Your task to perform on an android device: open the mobile data screen to see how much data has been used Image 0: 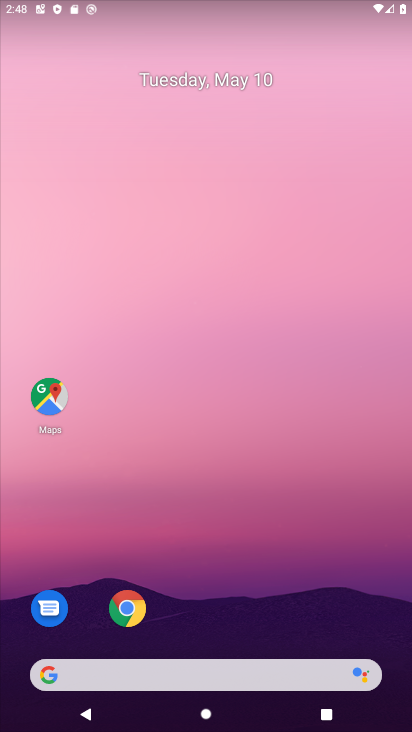
Step 0: drag from (246, 614) to (305, 12)
Your task to perform on an android device: open the mobile data screen to see how much data has been used Image 1: 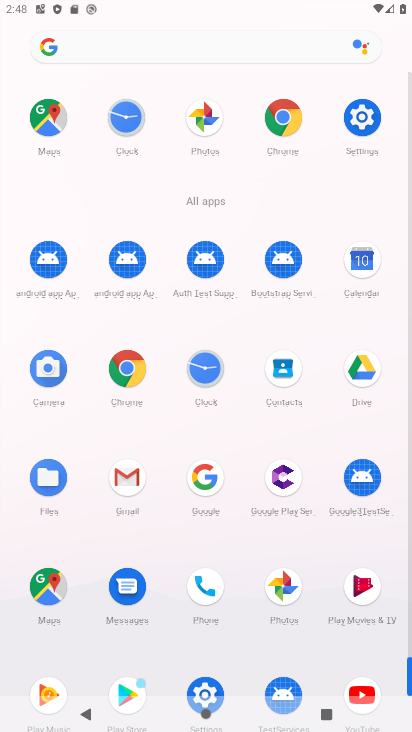
Step 1: drag from (238, 653) to (249, 509)
Your task to perform on an android device: open the mobile data screen to see how much data has been used Image 2: 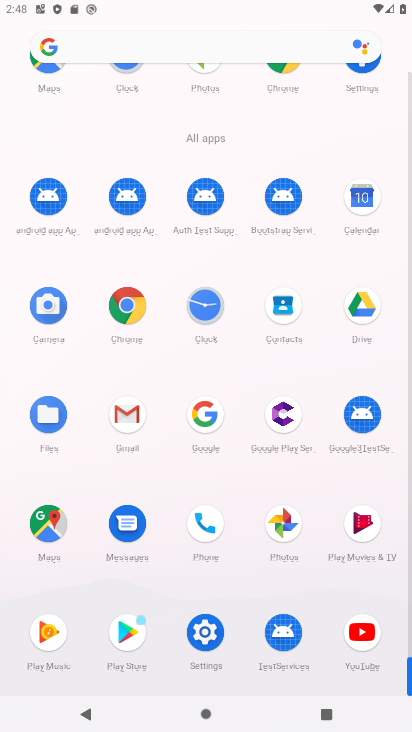
Step 2: click (201, 643)
Your task to perform on an android device: open the mobile data screen to see how much data has been used Image 3: 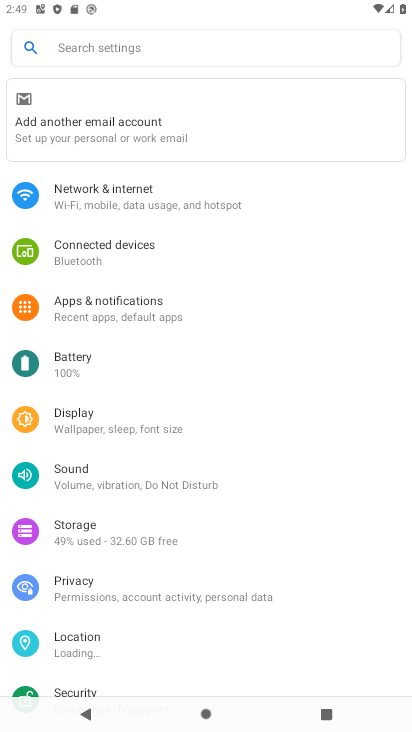
Step 3: click (148, 215)
Your task to perform on an android device: open the mobile data screen to see how much data has been used Image 4: 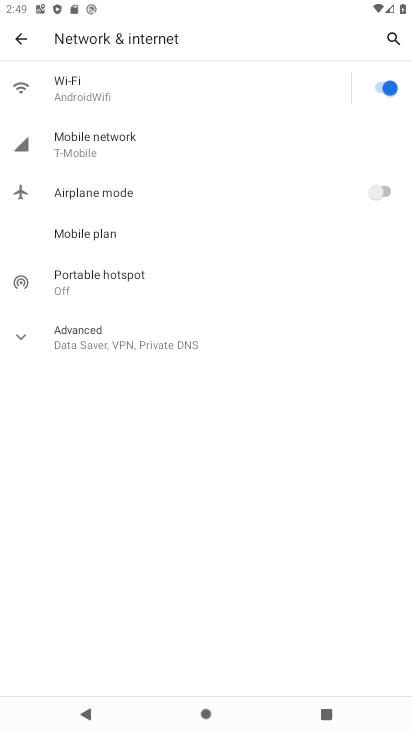
Step 4: click (124, 148)
Your task to perform on an android device: open the mobile data screen to see how much data has been used Image 5: 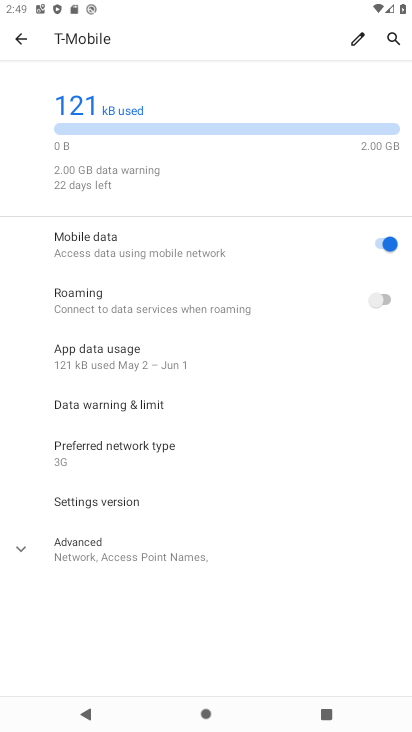
Step 5: click (144, 368)
Your task to perform on an android device: open the mobile data screen to see how much data has been used Image 6: 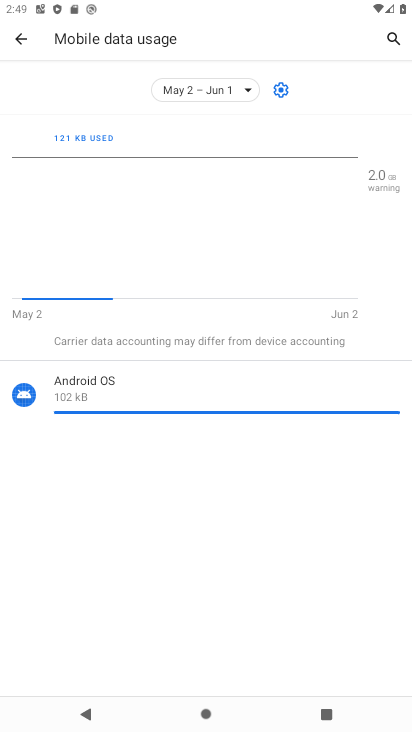
Step 6: task complete